Your task to perform on an android device: What's the weather today? Image 0: 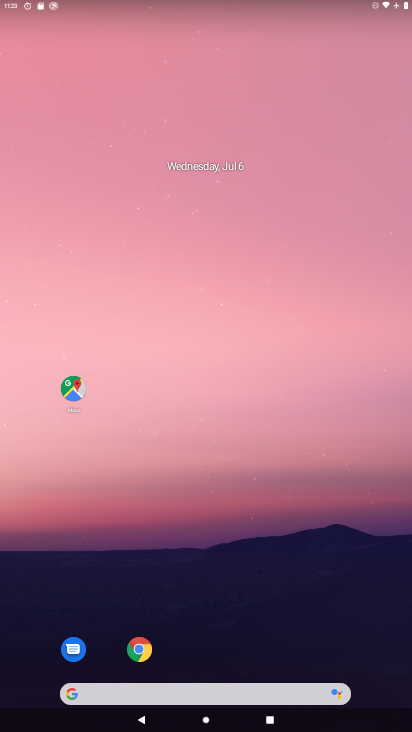
Step 0: drag from (379, 704) to (351, 104)
Your task to perform on an android device: What's the weather today? Image 1: 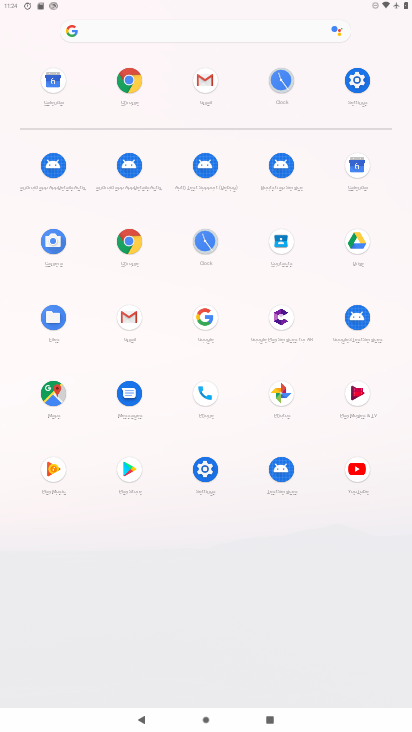
Step 1: task complete